Your task to perform on an android device: Toggle the flashlight Image 0: 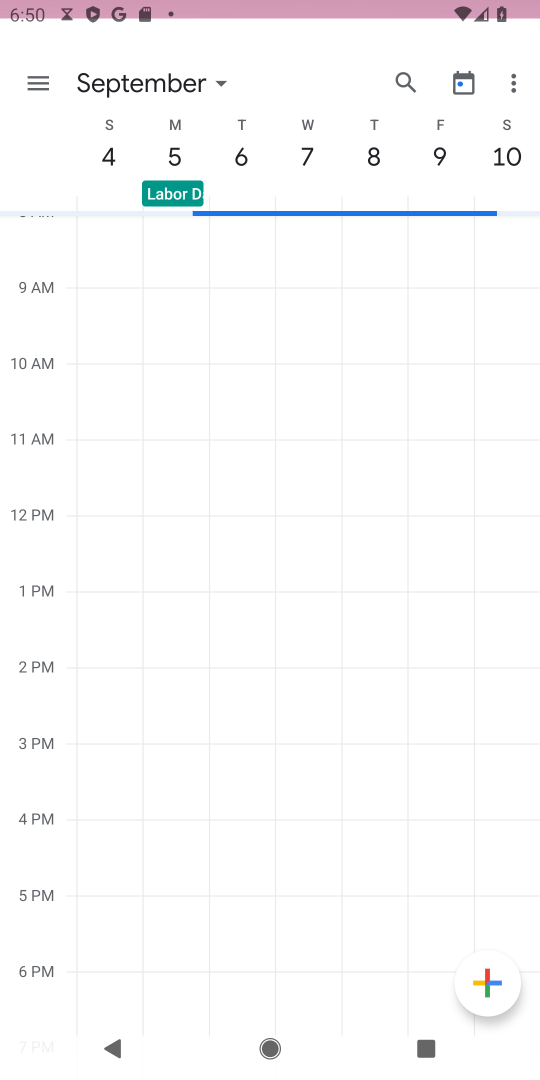
Step 0: press home button
Your task to perform on an android device: Toggle the flashlight Image 1: 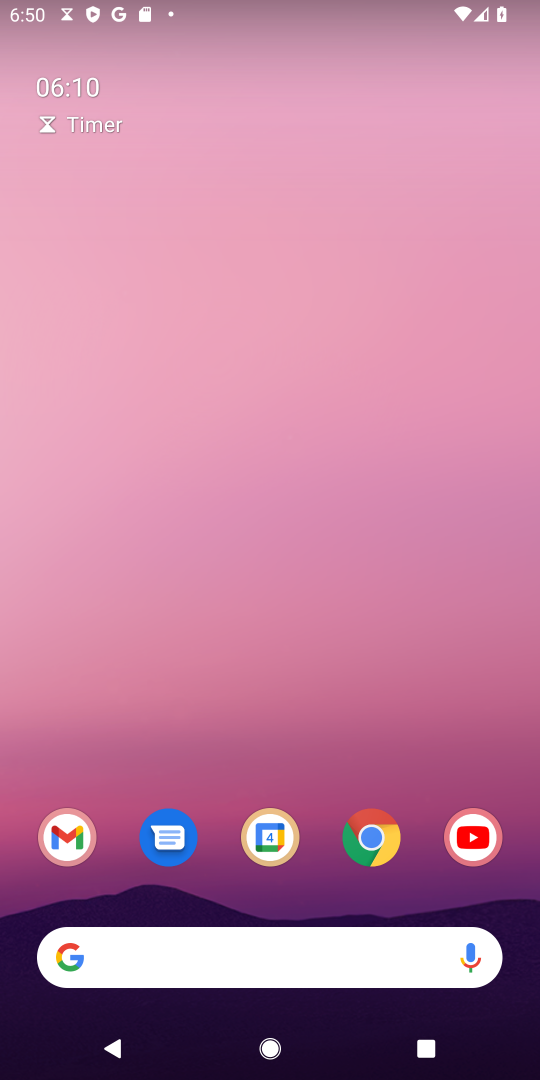
Step 1: drag from (330, 804) to (304, 36)
Your task to perform on an android device: Toggle the flashlight Image 2: 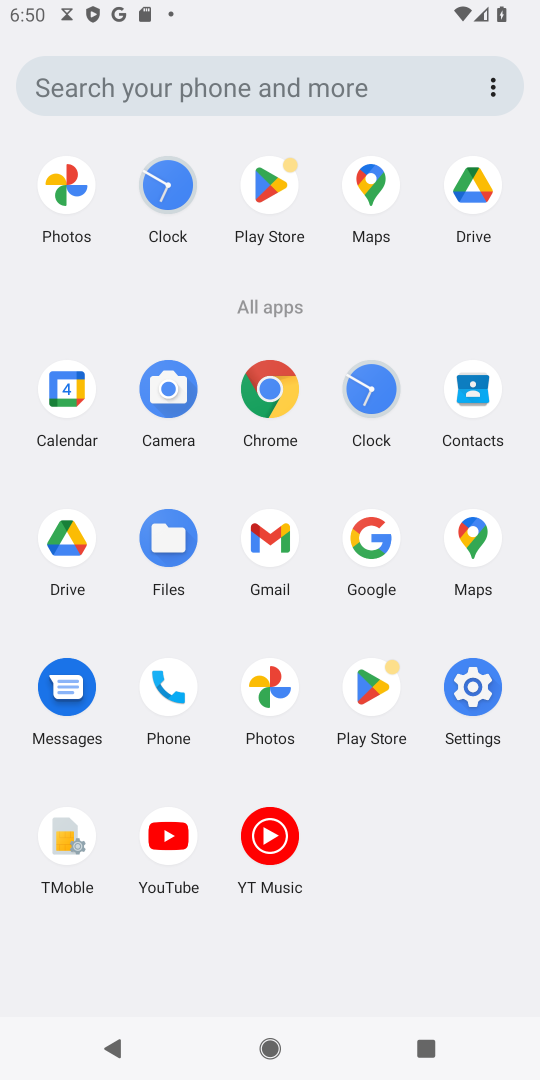
Step 2: click (469, 675)
Your task to perform on an android device: Toggle the flashlight Image 3: 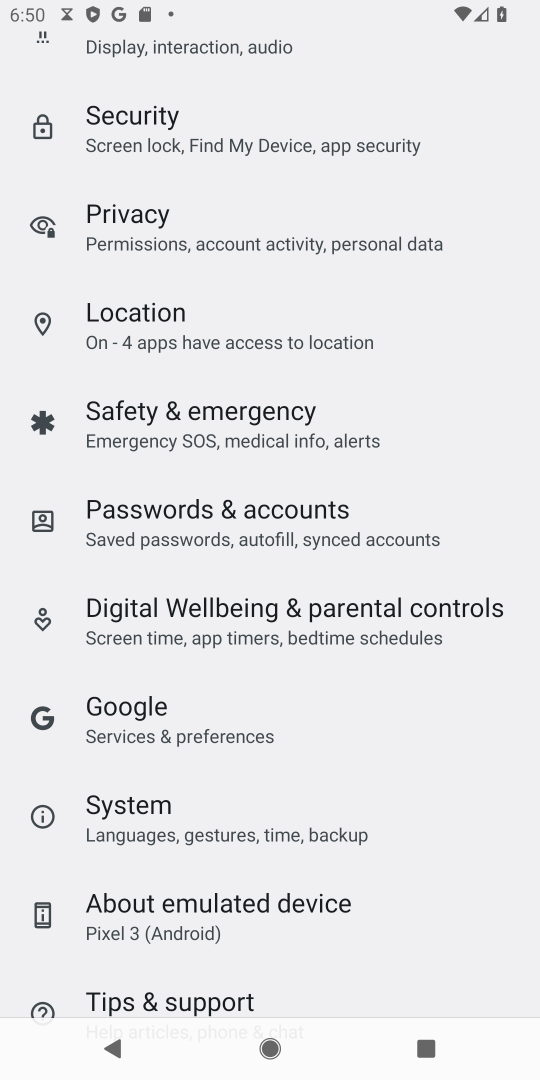
Step 3: drag from (300, 7) to (273, 1077)
Your task to perform on an android device: Toggle the flashlight Image 4: 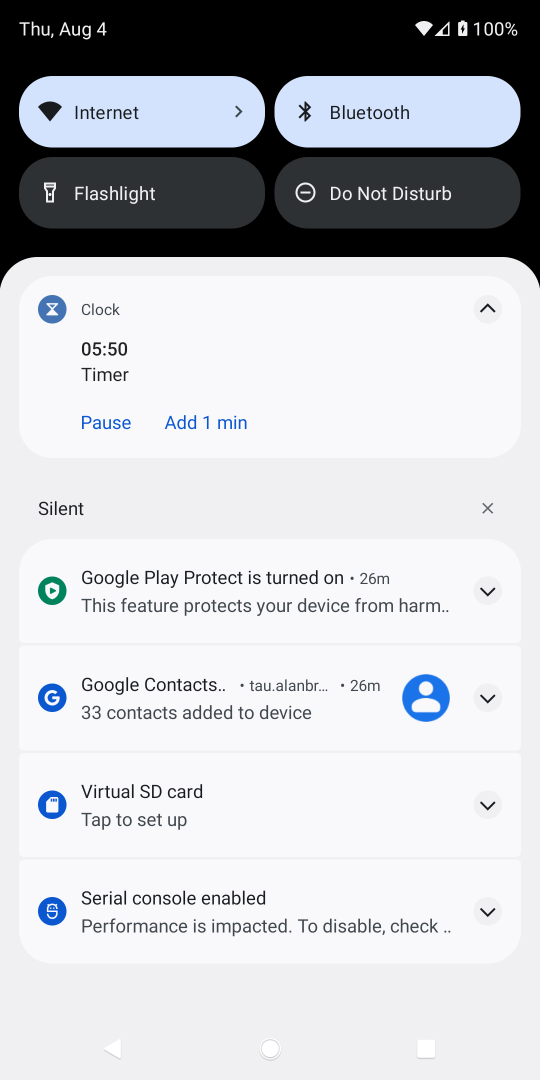
Step 4: click (122, 200)
Your task to perform on an android device: Toggle the flashlight Image 5: 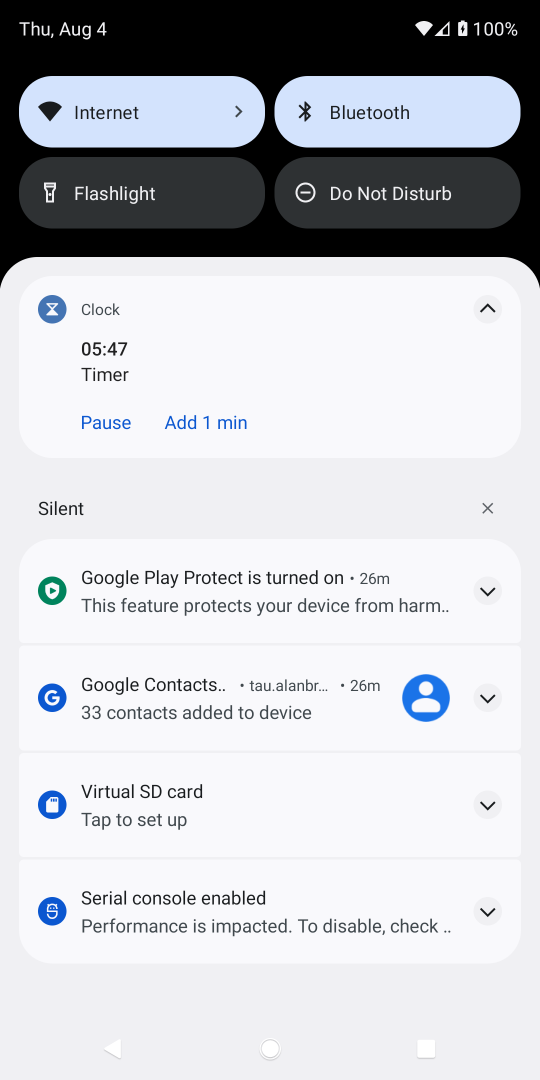
Step 5: drag from (284, 238) to (300, 977)
Your task to perform on an android device: Toggle the flashlight Image 6: 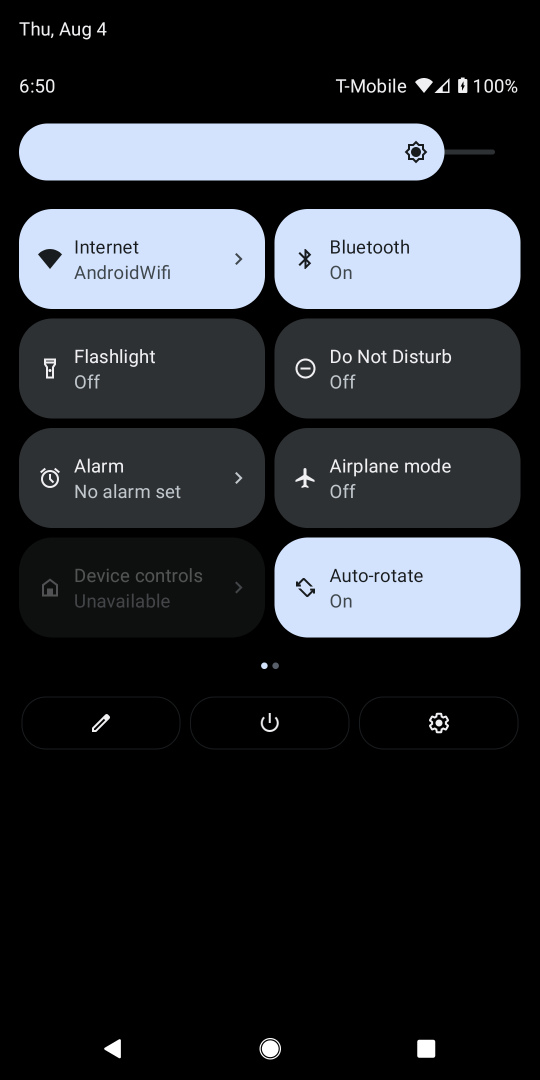
Step 6: click (100, 387)
Your task to perform on an android device: Toggle the flashlight Image 7: 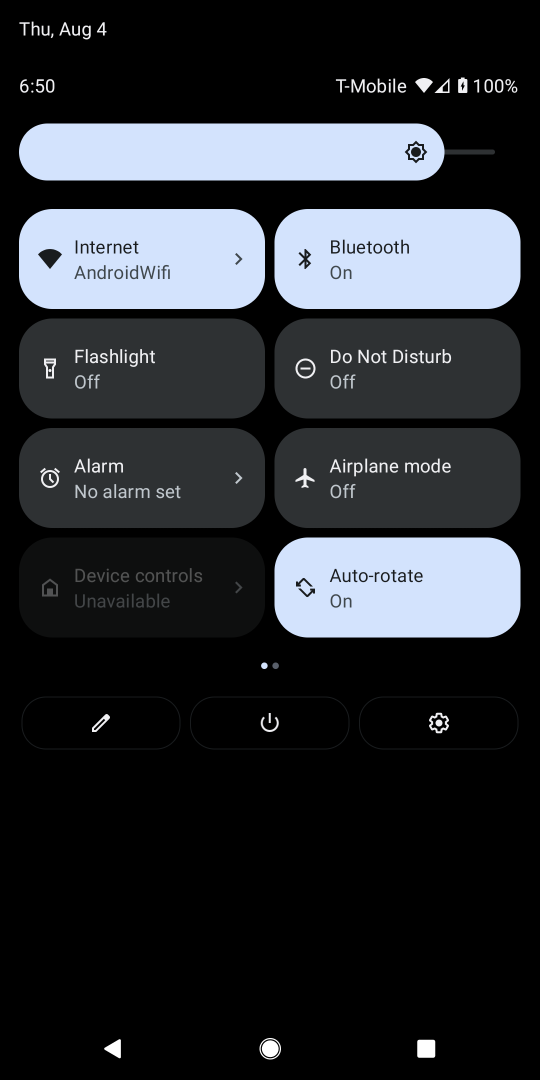
Step 7: task complete